Your task to perform on an android device: Go to network settings Image 0: 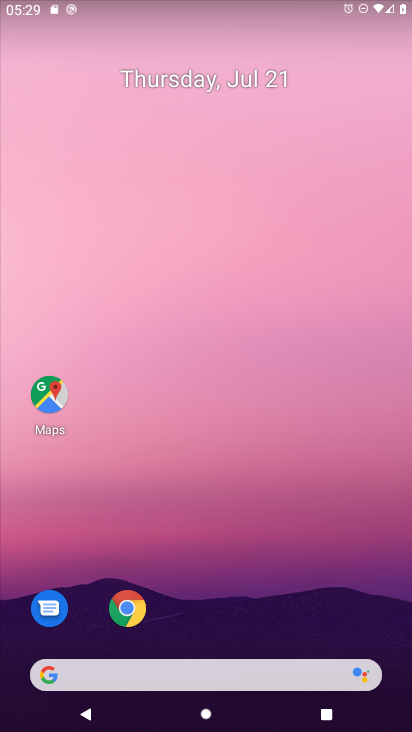
Step 0: drag from (317, 73) to (318, 1)
Your task to perform on an android device: Go to network settings Image 1: 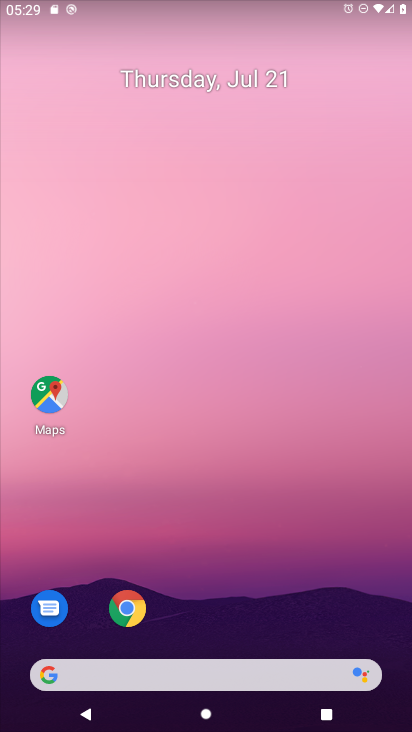
Step 1: drag from (249, 671) to (332, 27)
Your task to perform on an android device: Go to network settings Image 2: 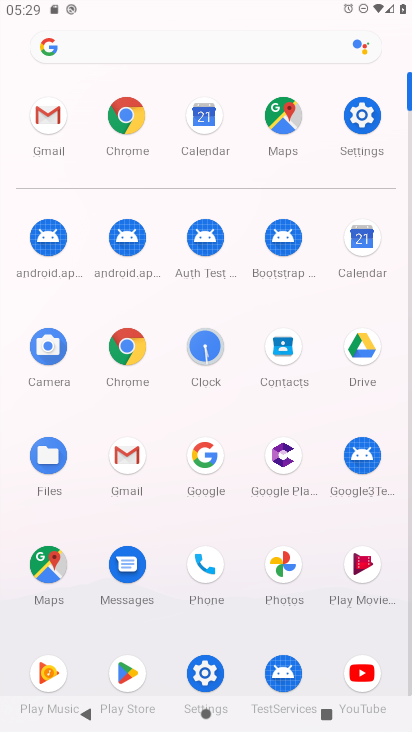
Step 2: click (349, 108)
Your task to perform on an android device: Go to network settings Image 3: 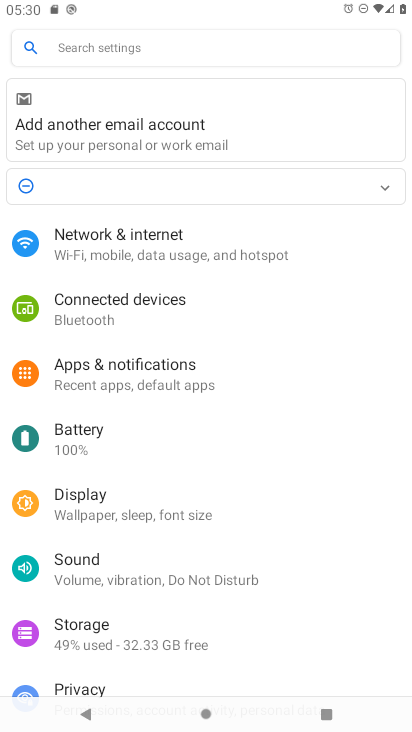
Step 3: click (144, 244)
Your task to perform on an android device: Go to network settings Image 4: 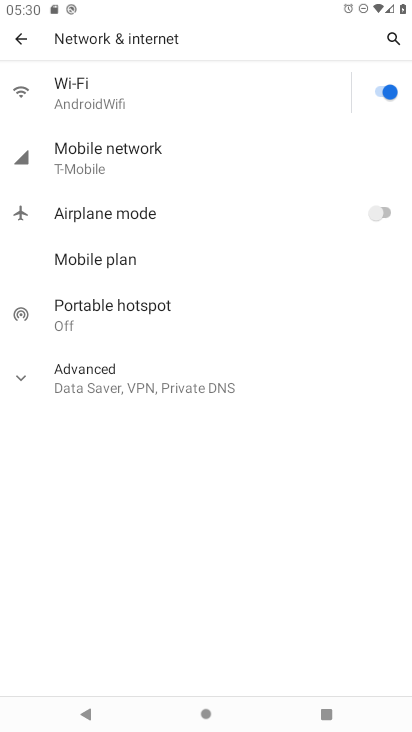
Step 4: task complete